Your task to perform on an android device: check storage Image 0: 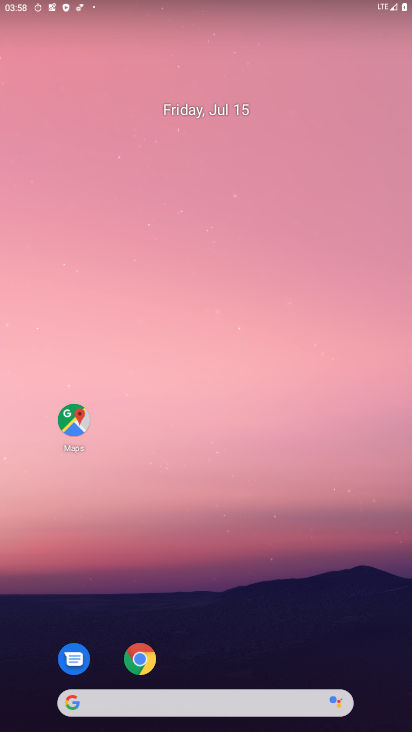
Step 0: drag from (304, 621) to (274, 13)
Your task to perform on an android device: check storage Image 1: 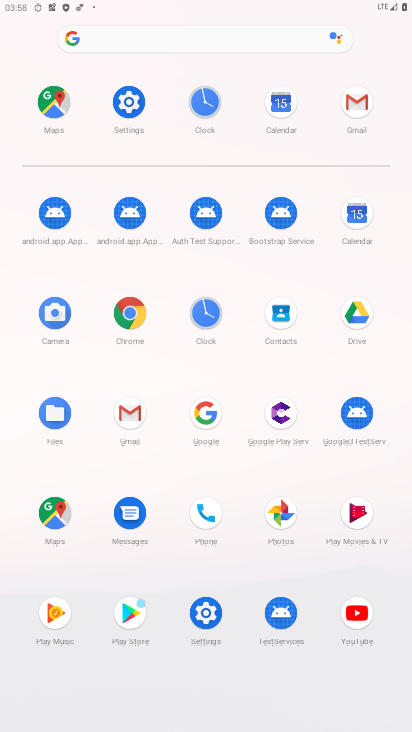
Step 1: click (211, 613)
Your task to perform on an android device: check storage Image 2: 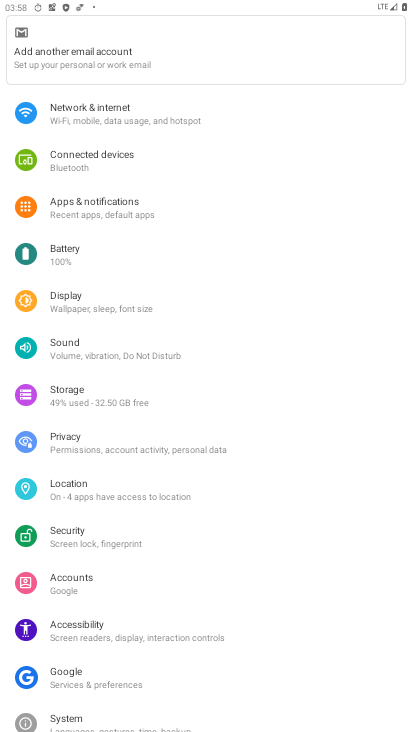
Step 2: click (72, 395)
Your task to perform on an android device: check storage Image 3: 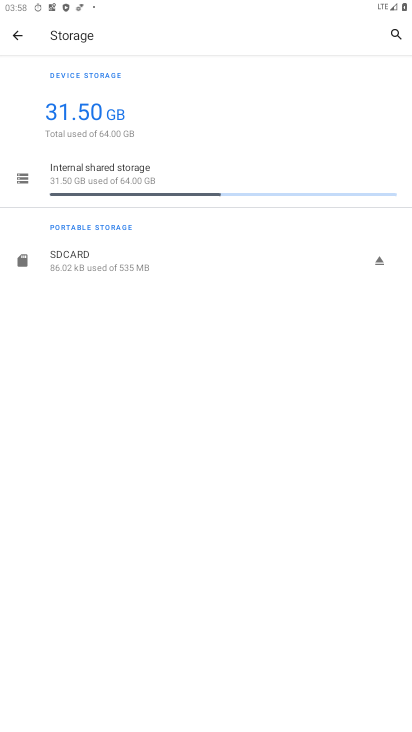
Step 3: task complete